Your task to perform on an android device: open the mobile data screen to see how much data has been used Image 0: 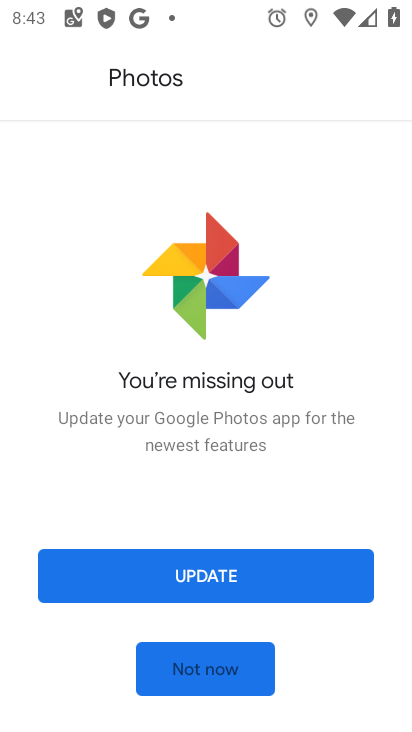
Step 0: press home button
Your task to perform on an android device: open the mobile data screen to see how much data has been used Image 1: 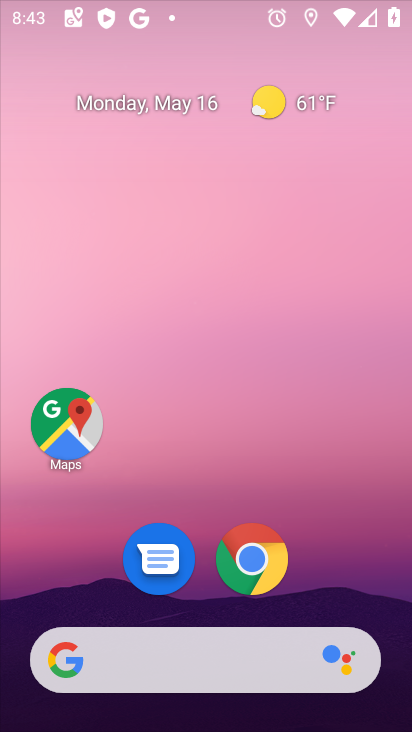
Step 1: drag from (336, 599) to (334, 176)
Your task to perform on an android device: open the mobile data screen to see how much data has been used Image 2: 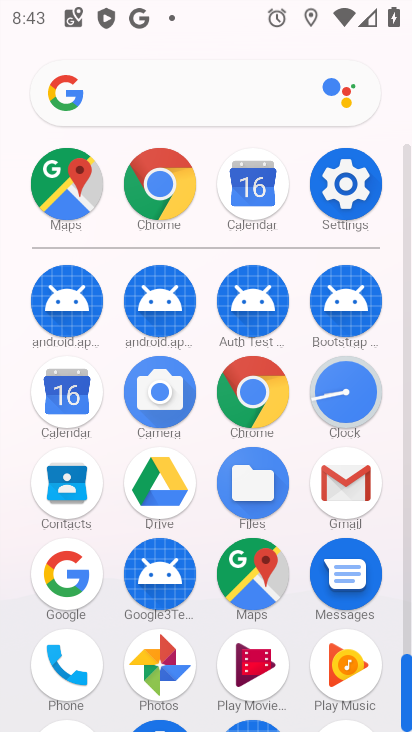
Step 2: click (348, 202)
Your task to perform on an android device: open the mobile data screen to see how much data has been used Image 3: 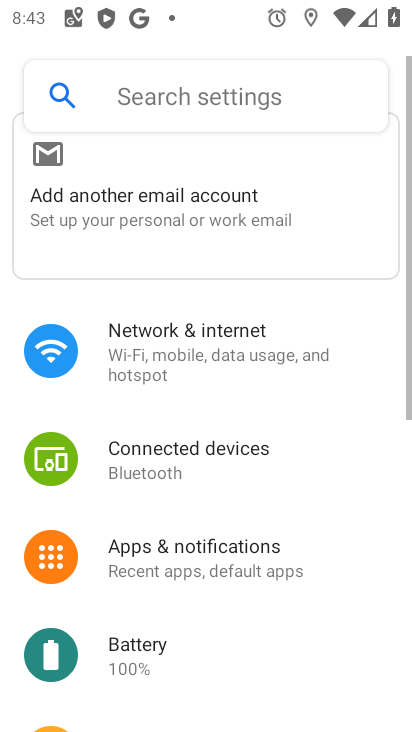
Step 3: click (291, 338)
Your task to perform on an android device: open the mobile data screen to see how much data has been used Image 4: 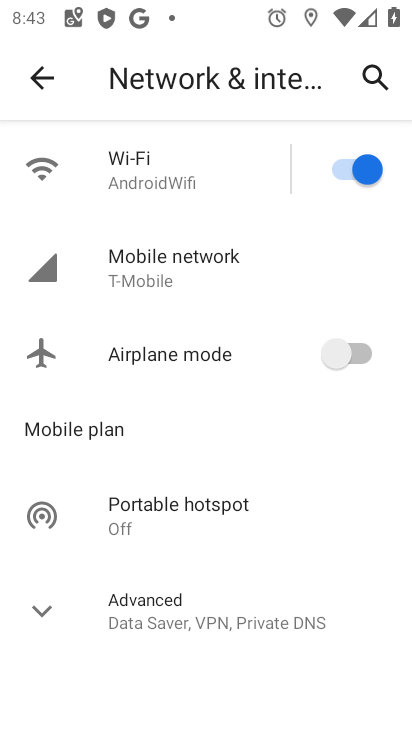
Step 4: click (235, 268)
Your task to perform on an android device: open the mobile data screen to see how much data has been used Image 5: 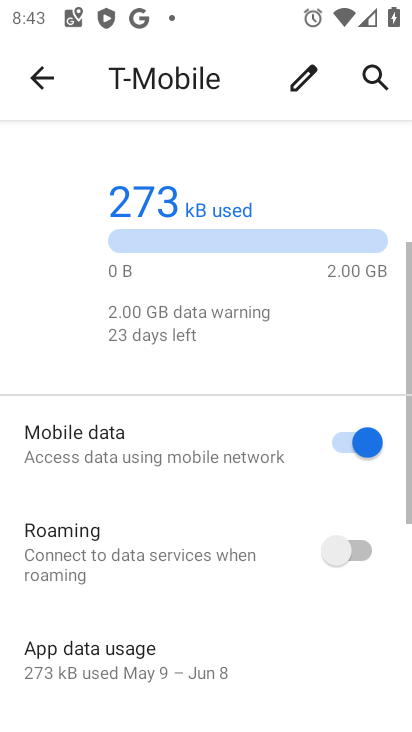
Step 5: task complete